Your task to perform on an android device: open wifi settings Image 0: 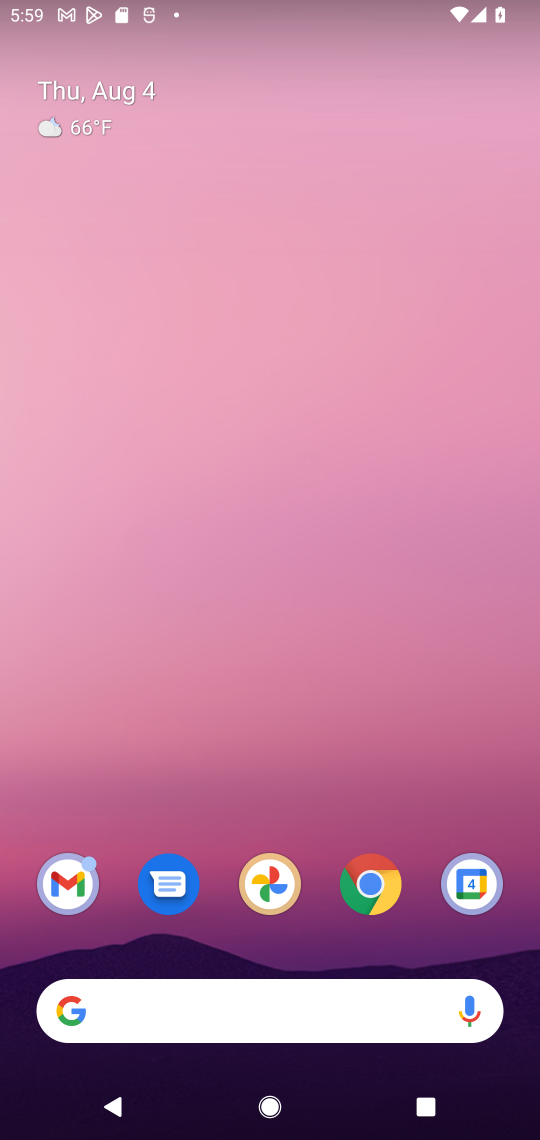
Step 0: drag from (317, 960) to (322, 247)
Your task to perform on an android device: open wifi settings Image 1: 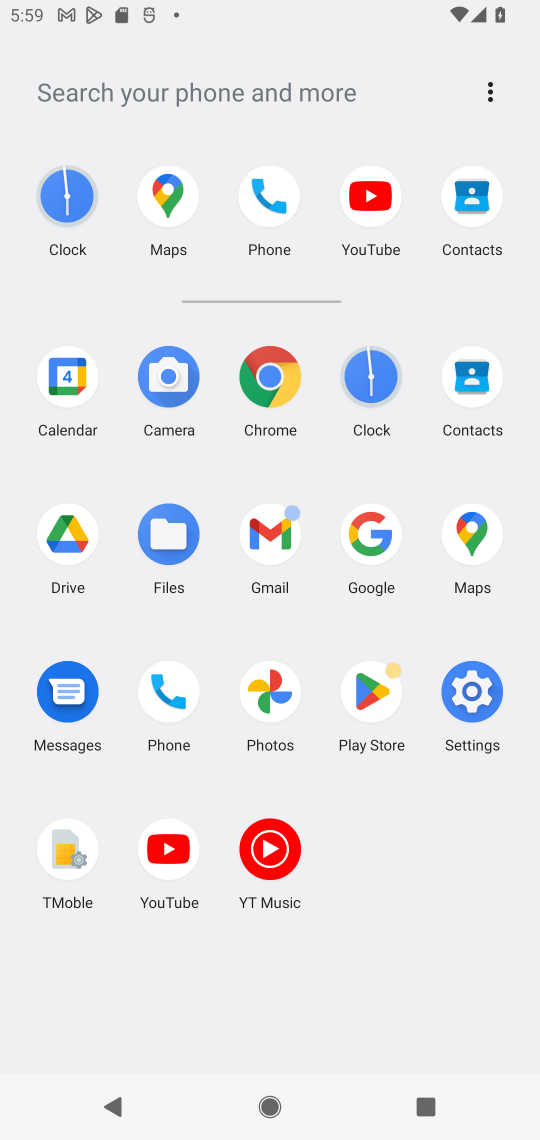
Step 1: click (441, 722)
Your task to perform on an android device: open wifi settings Image 2: 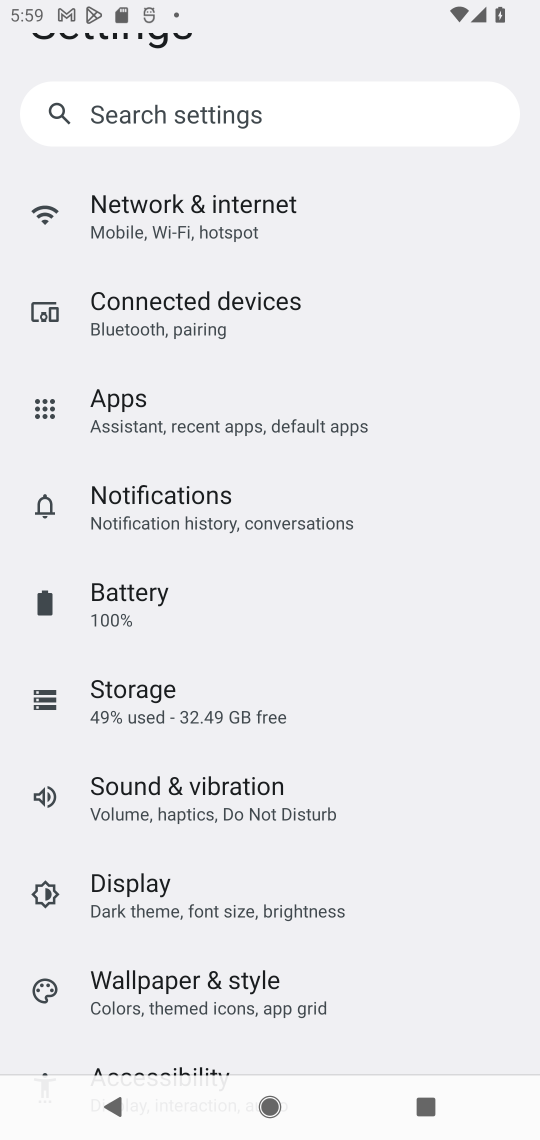
Step 2: click (154, 241)
Your task to perform on an android device: open wifi settings Image 3: 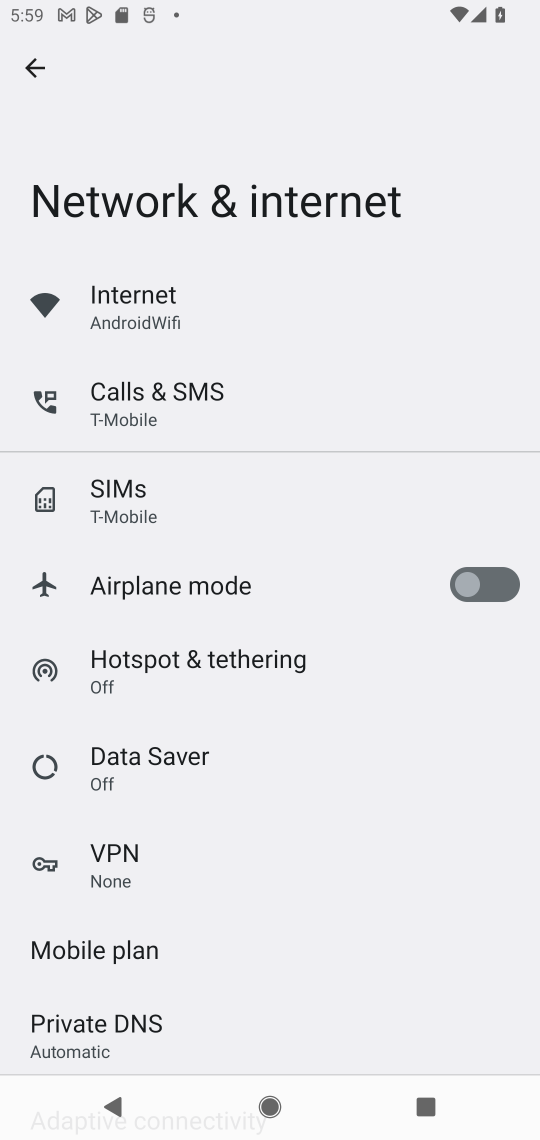
Step 3: task complete